Your task to perform on an android device: turn on location history Image 0: 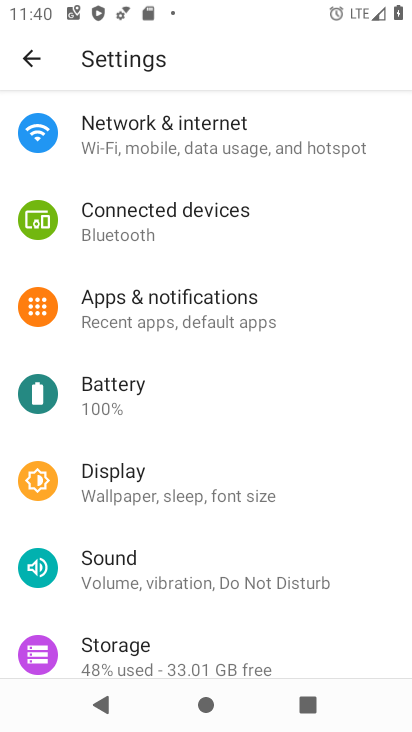
Step 0: press home button
Your task to perform on an android device: turn on location history Image 1: 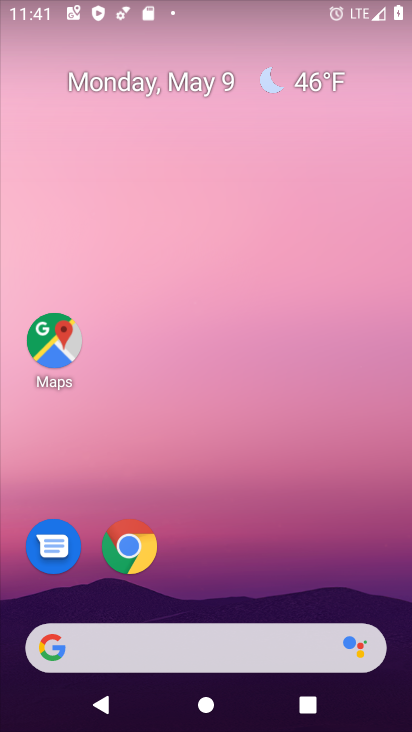
Step 1: click (56, 333)
Your task to perform on an android device: turn on location history Image 2: 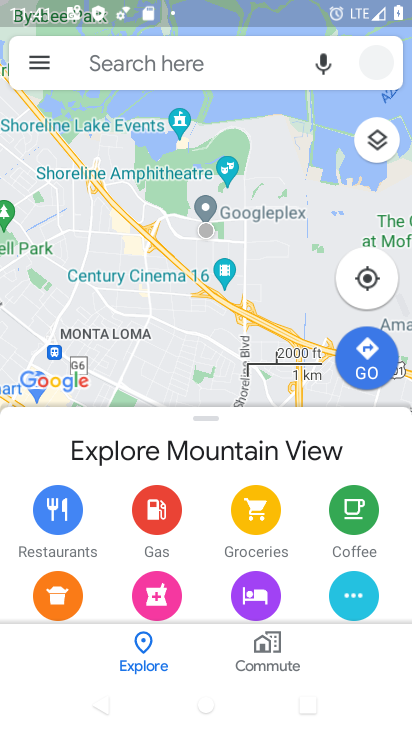
Step 2: click (38, 61)
Your task to perform on an android device: turn on location history Image 3: 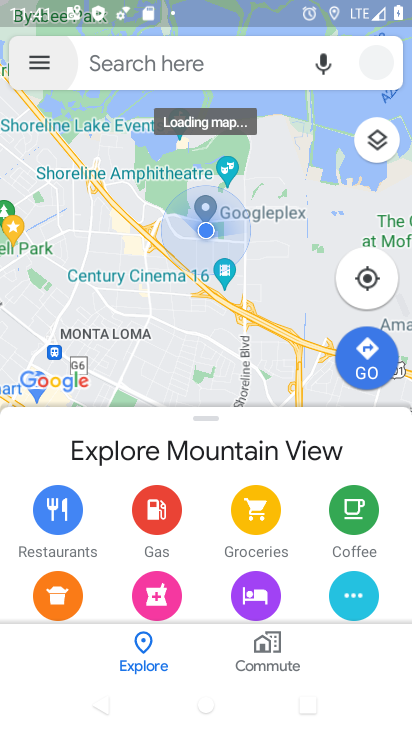
Step 3: click (42, 64)
Your task to perform on an android device: turn on location history Image 4: 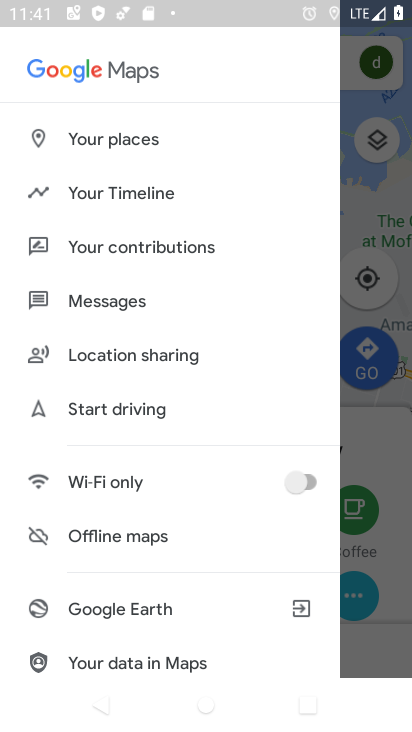
Step 4: click (115, 196)
Your task to perform on an android device: turn on location history Image 5: 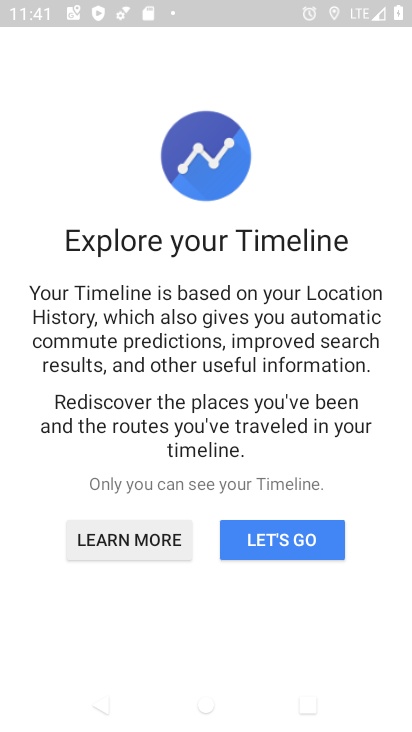
Step 5: click (298, 547)
Your task to perform on an android device: turn on location history Image 6: 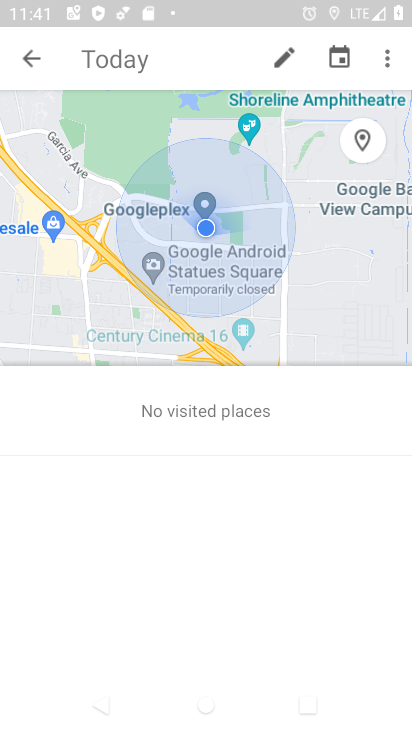
Step 6: click (388, 63)
Your task to perform on an android device: turn on location history Image 7: 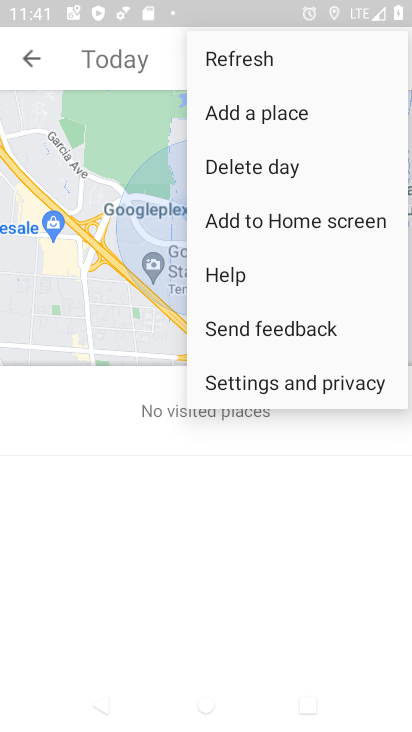
Step 7: click (267, 382)
Your task to perform on an android device: turn on location history Image 8: 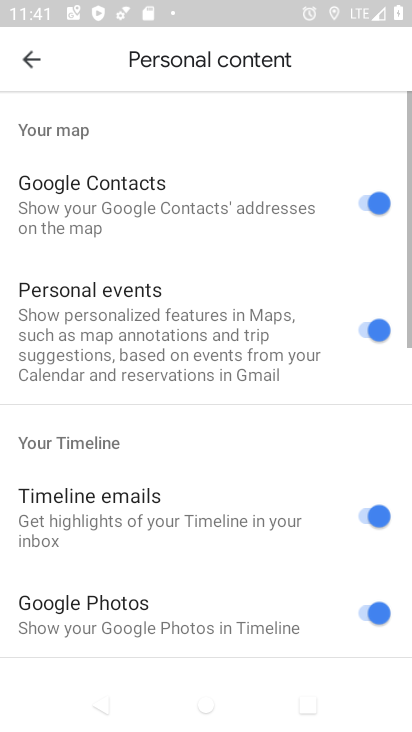
Step 8: drag from (168, 481) to (187, 125)
Your task to perform on an android device: turn on location history Image 9: 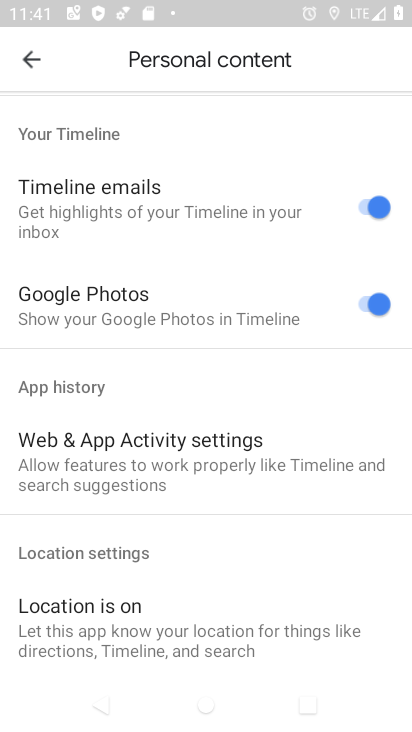
Step 9: drag from (170, 484) to (179, 120)
Your task to perform on an android device: turn on location history Image 10: 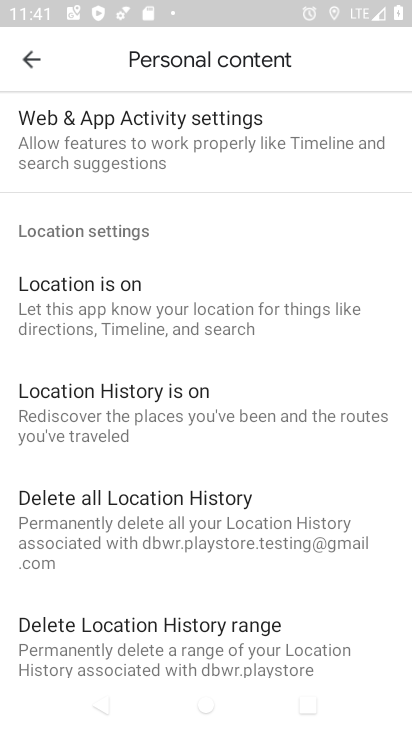
Step 10: drag from (128, 490) to (128, 224)
Your task to perform on an android device: turn on location history Image 11: 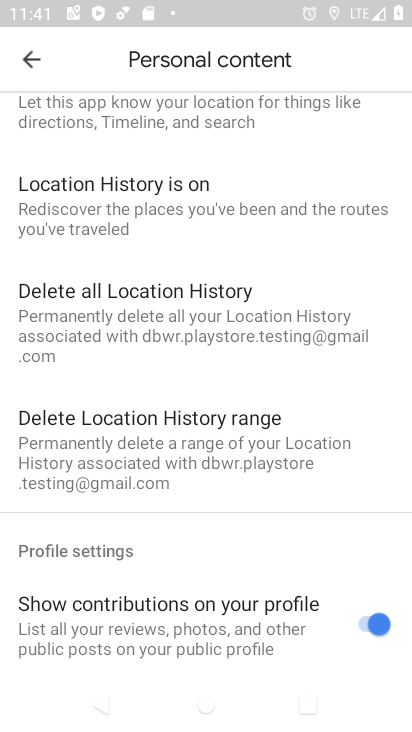
Step 11: click (113, 220)
Your task to perform on an android device: turn on location history Image 12: 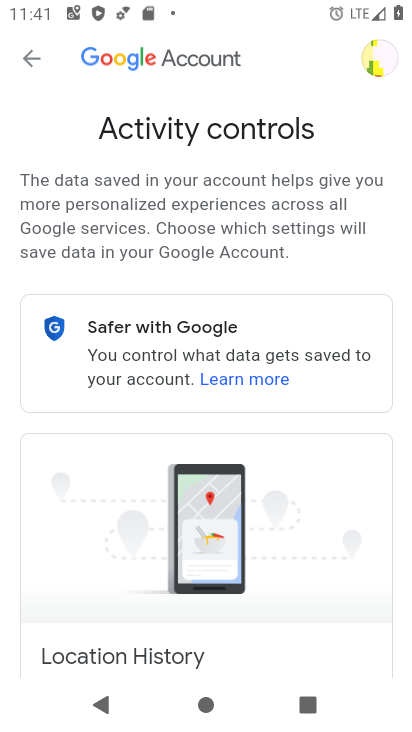
Step 12: task complete